Your task to perform on an android device: Set the phone to "Do not disturb". Image 0: 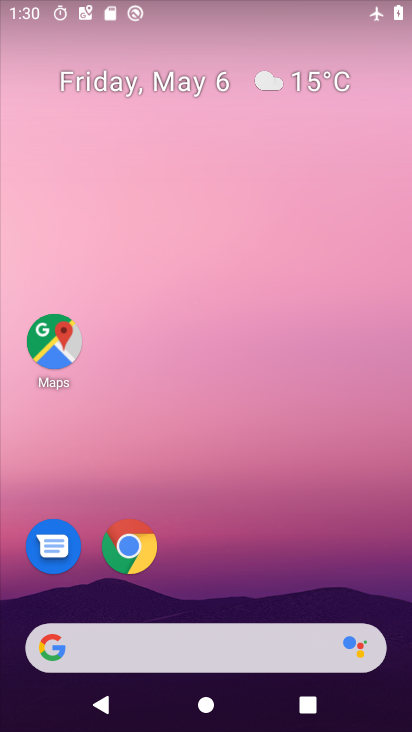
Step 0: drag from (274, 567) to (244, 115)
Your task to perform on an android device: Set the phone to "Do not disturb". Image 1: 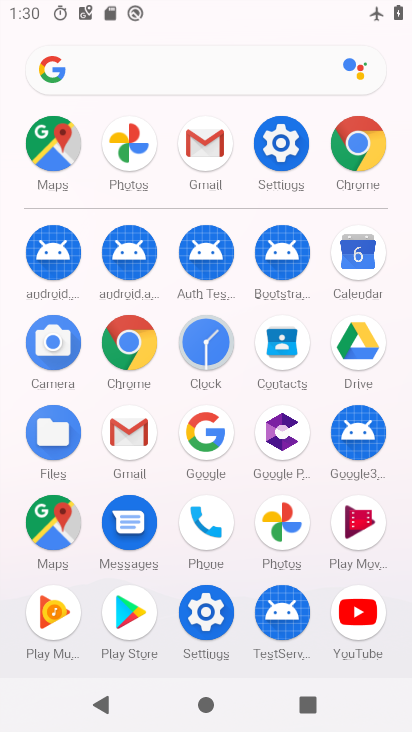
Step 1: click (292, 140)
Your task to perform on an android device: Set the phone to "Do not disturb". Image 2: 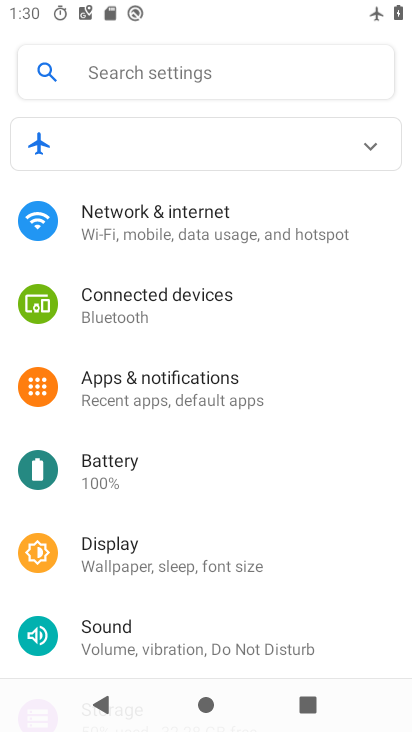
Step 2: drag from (325, 583) to (312, 473)
Your task to perform on an android device: Set the phone to "Do not disturb". Image 3: 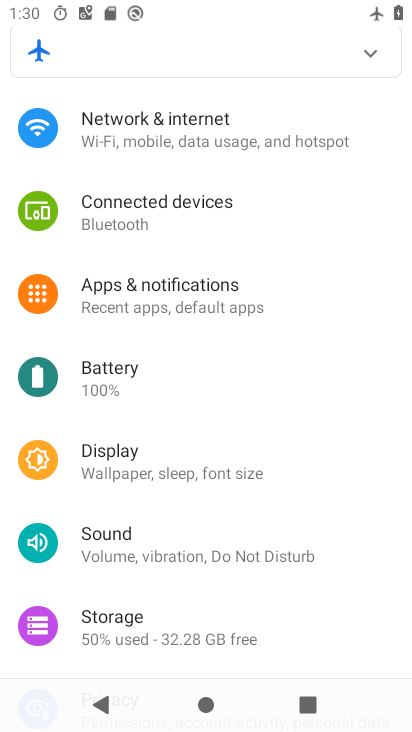
Step 3: click (253, 541)
Your task to perform on an android device: Set the phone to "Do not disturb". Image 4: 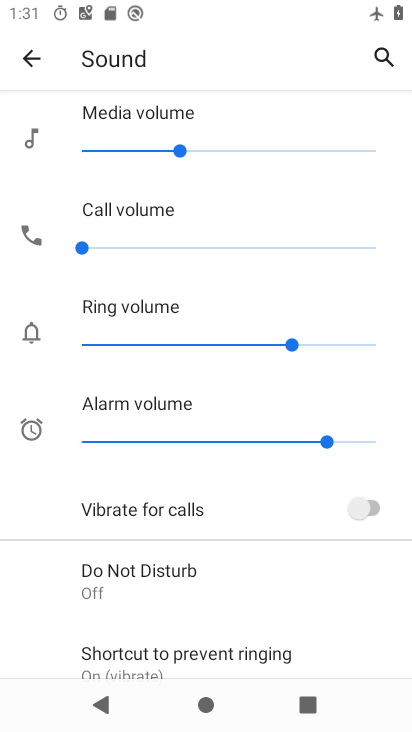
Step 4: click (113, 586)
Your task to perform on an android device: Set the phone to "Do not disturb". Image 5: 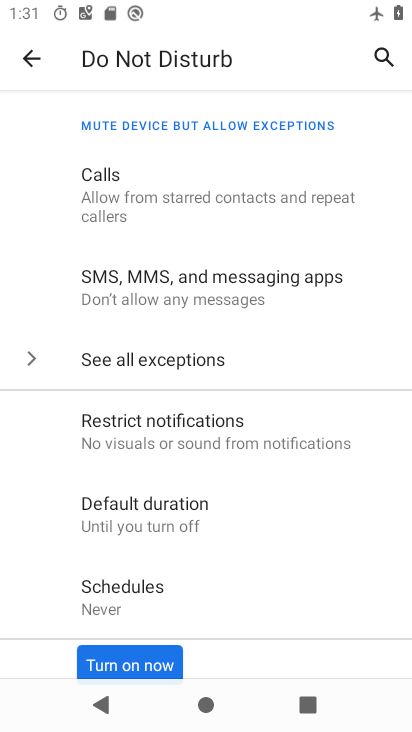
Step 5: click (133, 659)
Your task to perform on an android device: Set the phone to "Do not disturb". Image 6: 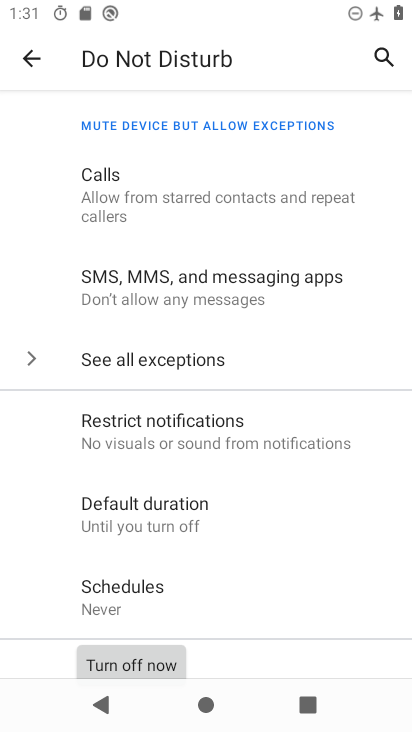
Step 6: task complete